Your task to perform on an android device: change keyboard looks Image 0: 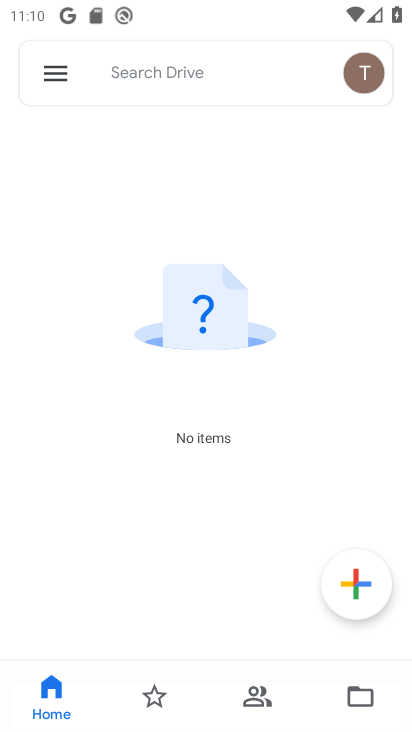
Step 0: press home button
Your task to perform on an android device: change keyboard looks Image 1: 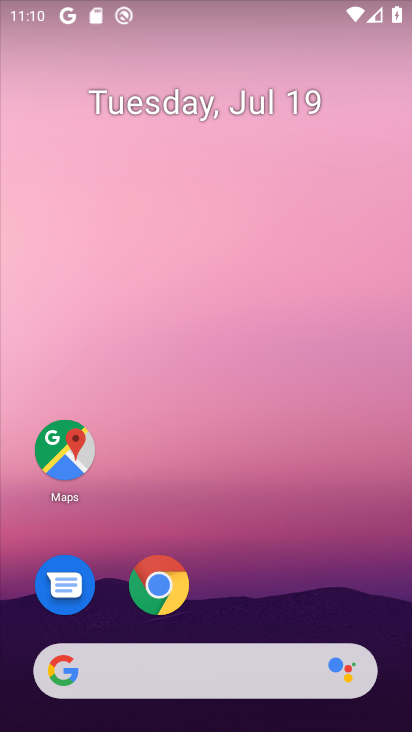
Step 1: drag from (177, 669) to (315, 0)
Your task to perform on an android device: change keyboard looks Image 2: 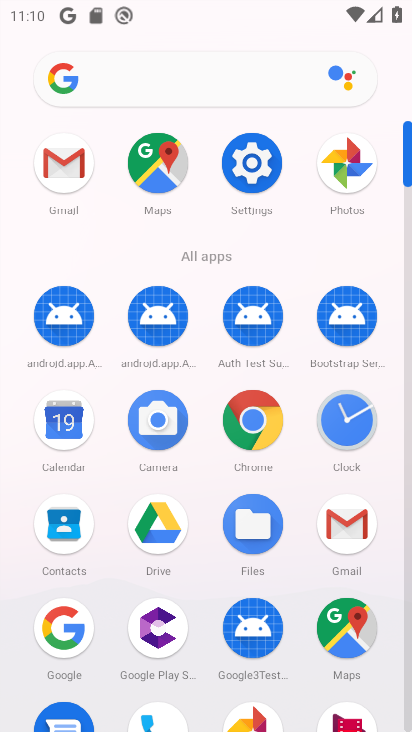
Step 2: click (262, 176)
Your task to perform on an android device: change keyboard looks Image 3: 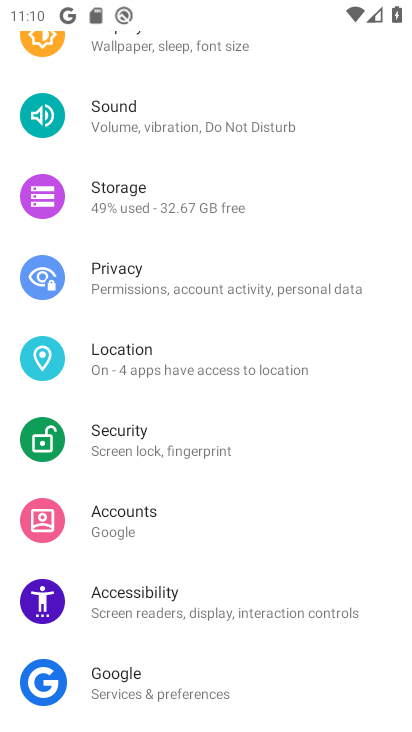
Step 3: drag from (248, 606) to (352, 44)
Your task to perform on an android device: change keyboard looks Image 4: 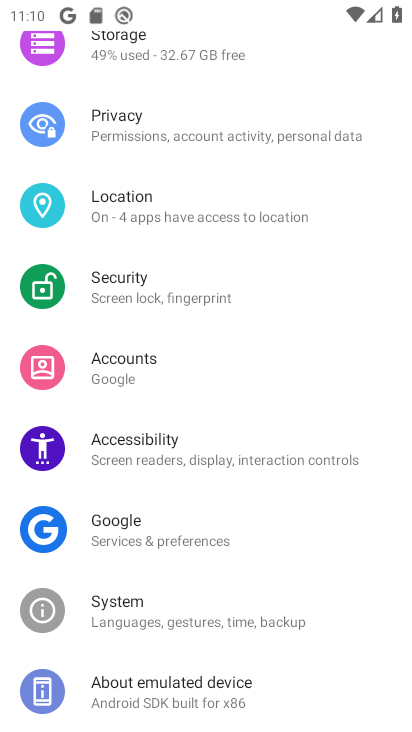
Step 4: click (171, 594)
Your task to perform on an android device: change keyboard looks Image 5: 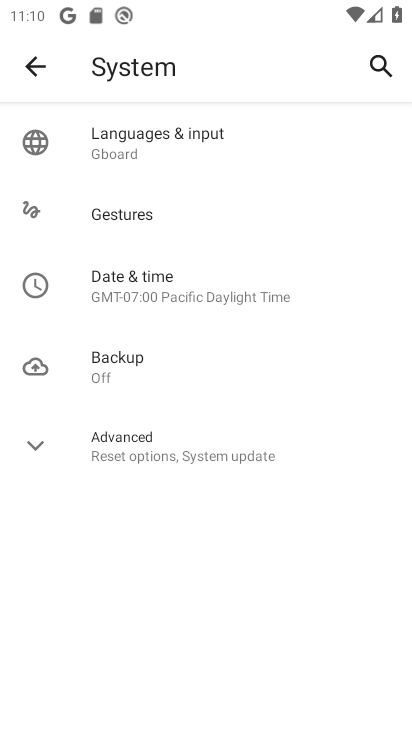
Step 5: click (172, 136)
Your task to perform on an android device: change keyboard looks Image 6: 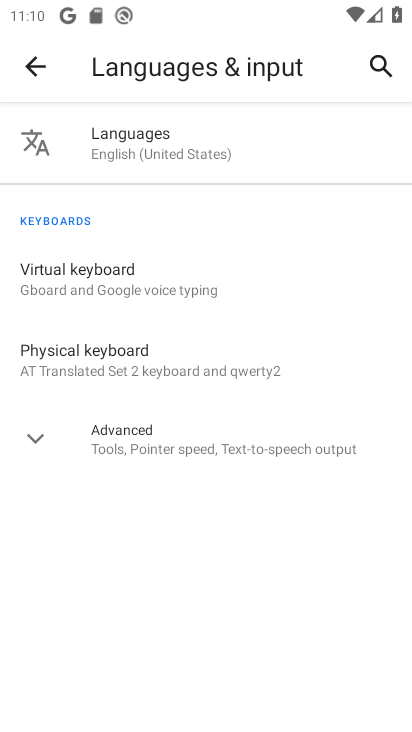
Step 6: click (139, 155)
Your task to perform on an android device: change keyboard looks Image 7: 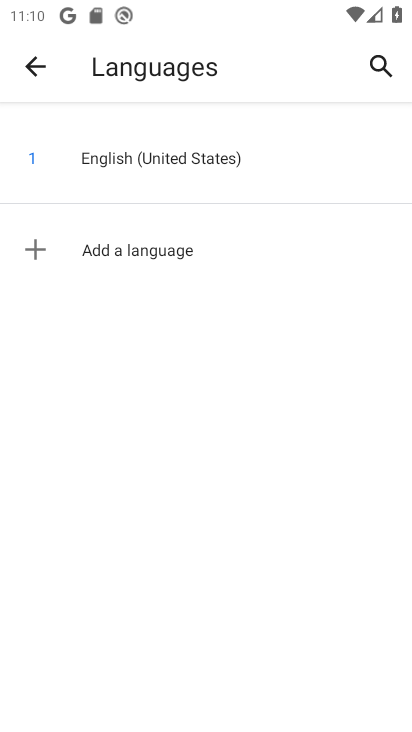
Step 7: click (41, 64)
Your task to perform on an android device: change keyboard looks Image 8: 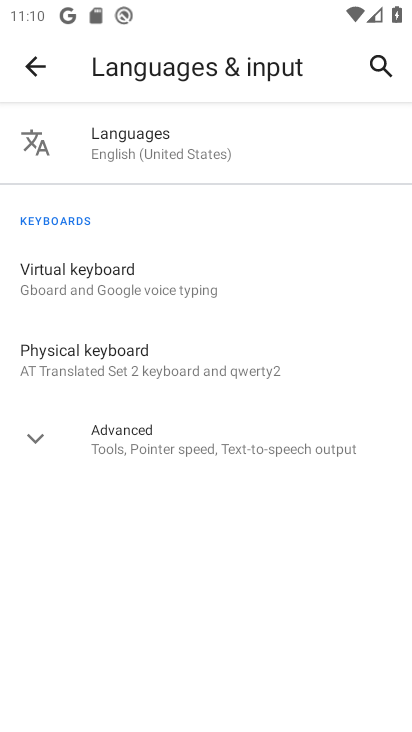
Step 8: click (85, 276)
Your task to perform on an android device: change keyboard looks Image 9: 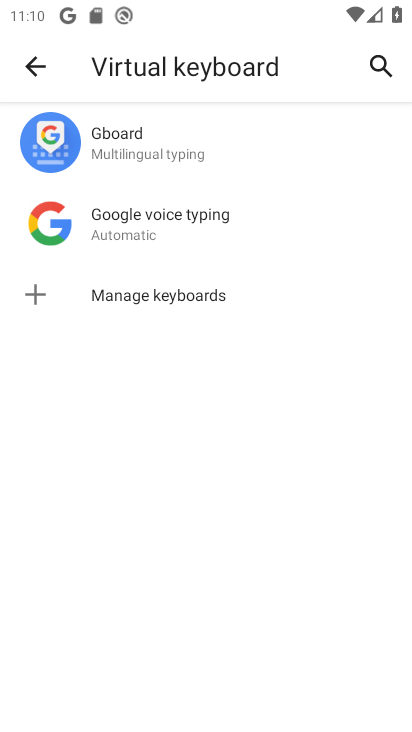
Step 9: click (154, 142)
Your task to perform on an android device: change keyboard looks Image 10: 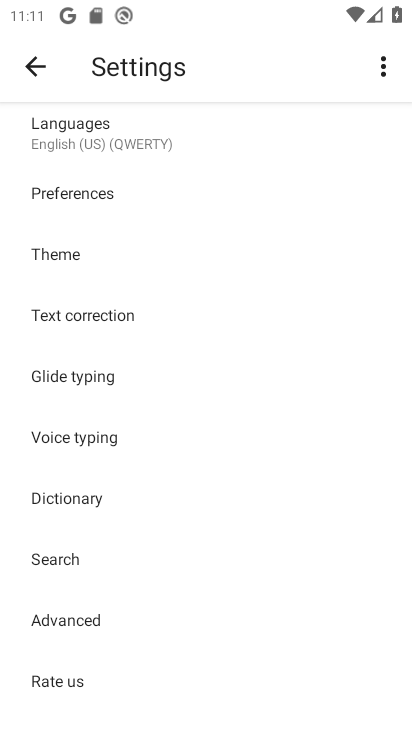
Step 10: click (80, 262)
Your task to perform on an android device: change keyboard looks Image 11: 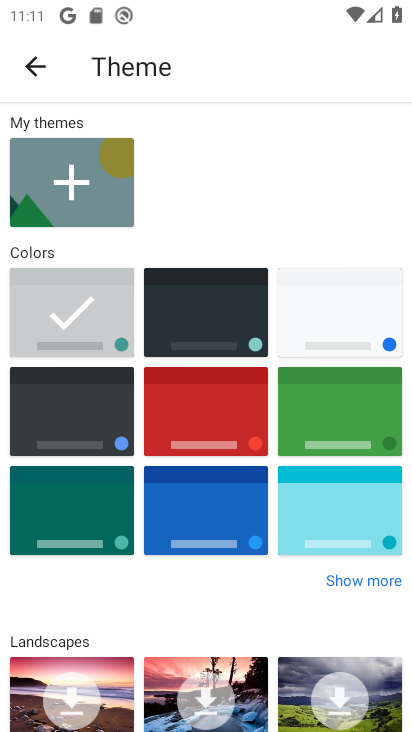
Step 11: click (85, 492)
Your task to perform on an android device: change keyboard looks Image 12: 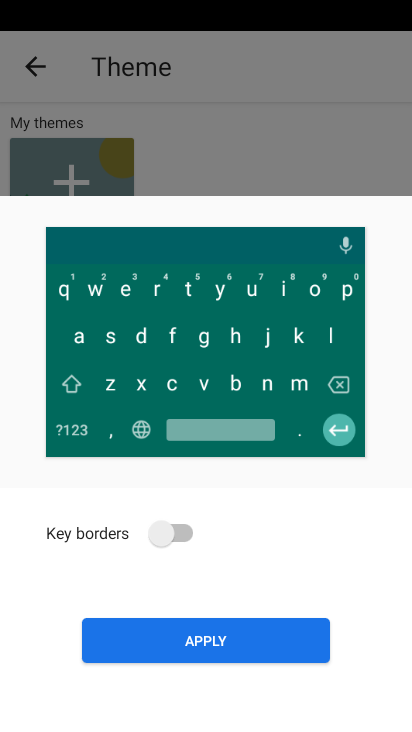
Step 12: click (194, 640)
Your task to perform on an android device: change keyboard looks Image 13: 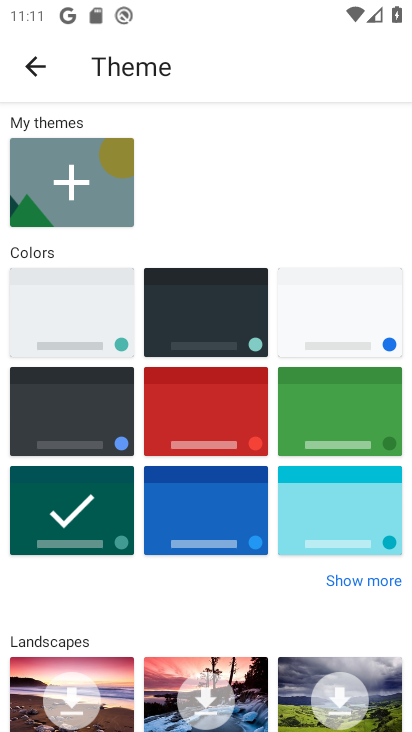
Step 13: task complete